Your task to perform on an android device: Search for pizza restaurants on Maps Image 0: 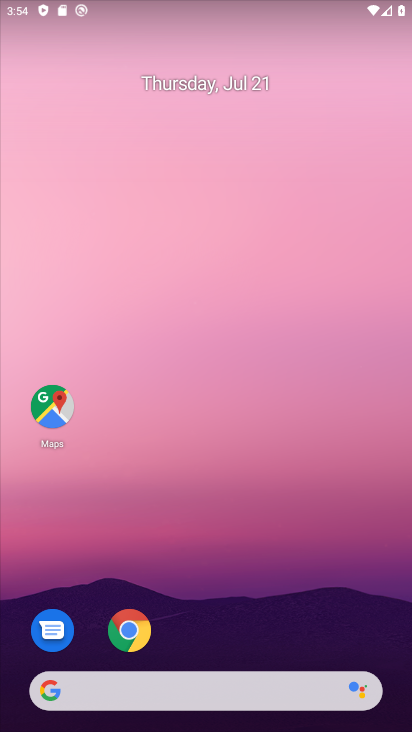
Step 0: click (53, 407)
Your task to perform on an android device: Search for pizza restaurants on Maps Image 1: 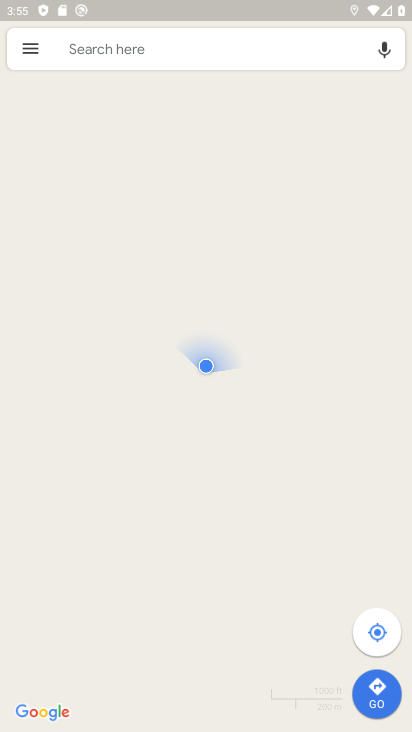
Step 1: click (151, 55)
Your task to perform on an android device: Search for pizza restaurants on Maps Image 2: 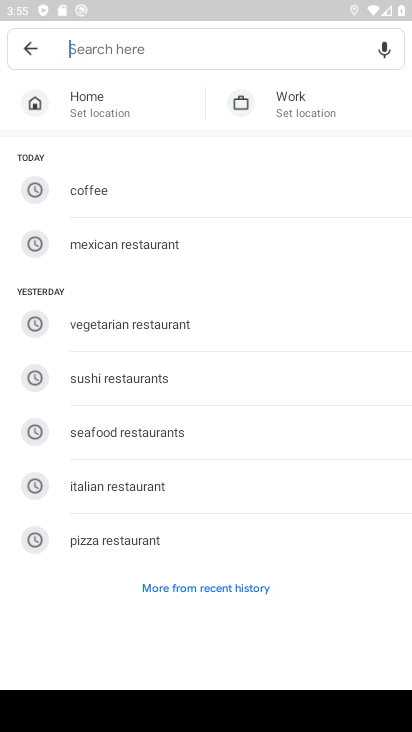
Step 2: type "pizza restaurants"
Your task to perform on an android device: Search for pizza restaurants on Maps Image 3: 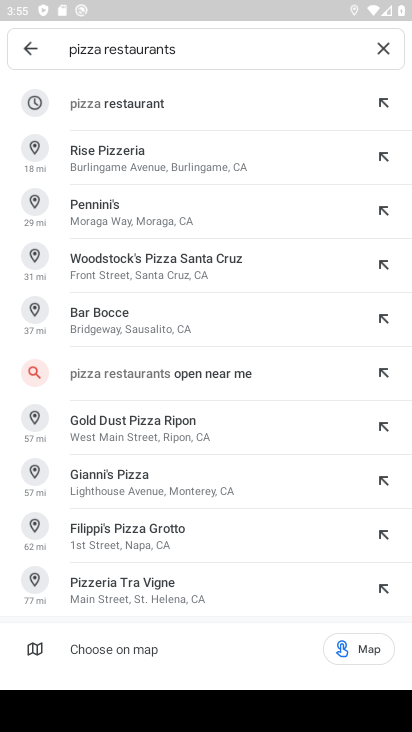
Step 3: click (127, 102)
Your task to perform on an android device: Search for pizza restaurants on Maps Image 4: 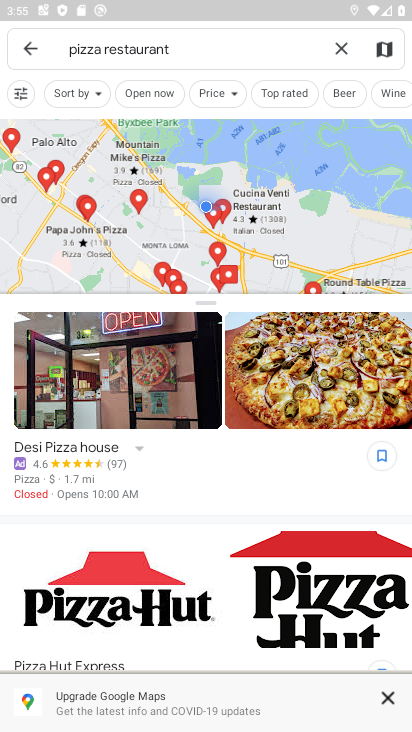
Step 4: task complete